Your task to perform on an android device: Open Youtube and go to "Your channel" Image 0: 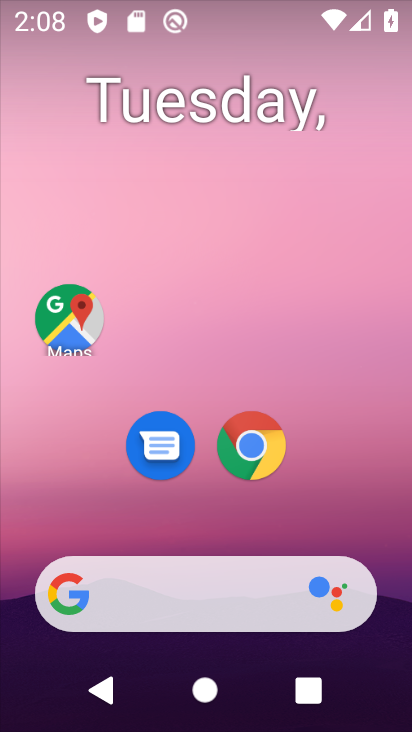
Step 0: drag from (41, 564) to (219, 106)
Your task to perform on an android device: Open Youtube and go to "Your channel" Image 1: 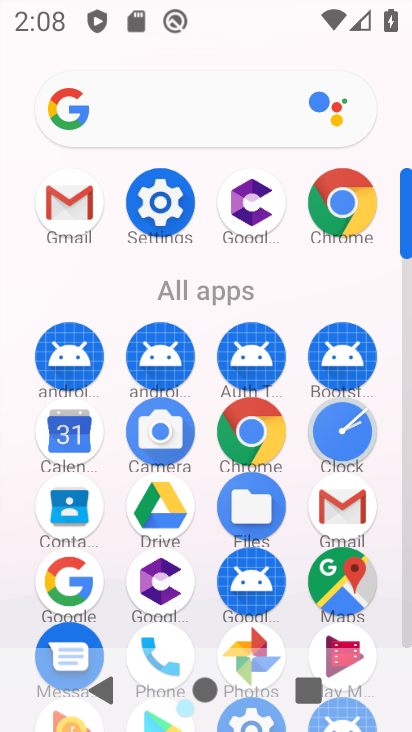
Step 1: drag from (181, 586) to (279, 287)
Your task to perform on an android device: Open Youtube and go to "Your channel" Image 2: 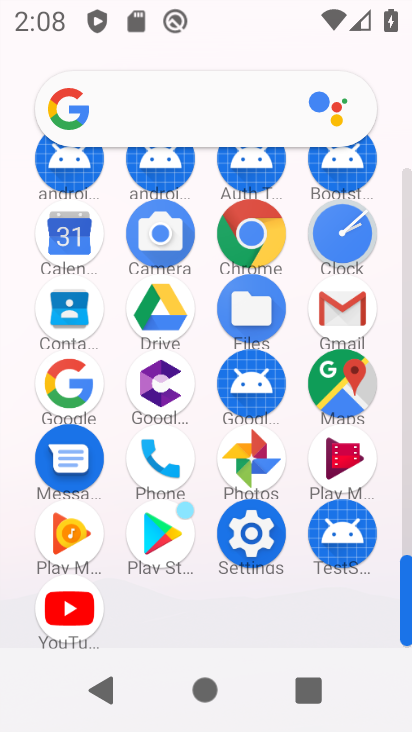
Step 2: click (78, 607)
Your task to perform on an android device: Open Youtube and go to "Your channel" Image 3: 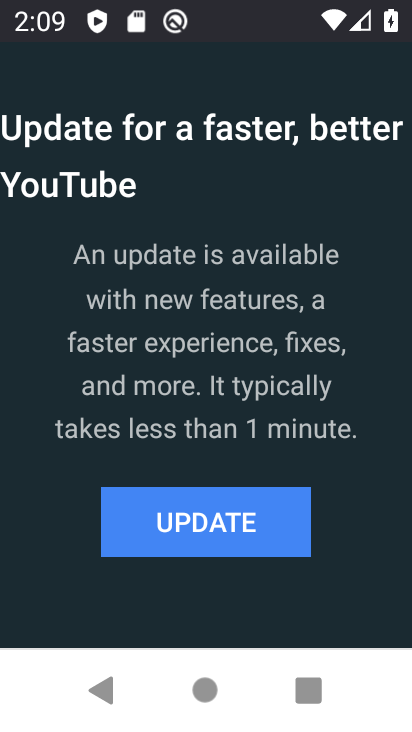
Step 3: click (234, 532)
Your task to perform on an android device: Open Youtube and go to "Your channel" Image 4: 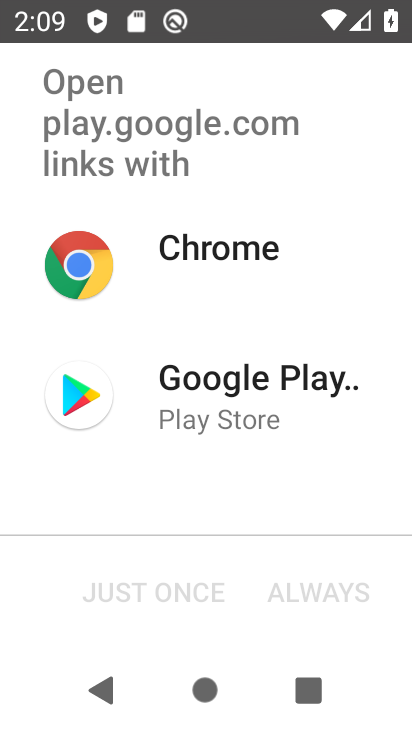
Step 4: click (290, 461)
Your task to perform on an android device: Open Youtube and go to "Your channel" Image 5: 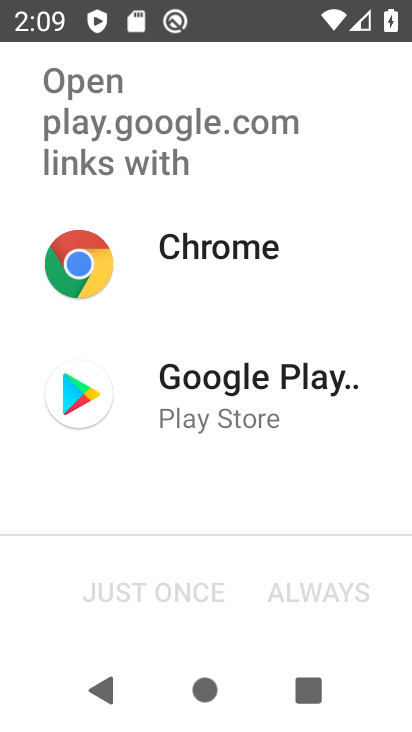
Step 5: click (312, 426)
Your task to perform on an android device: Open Youtube and go to "Your channel" Image 6: 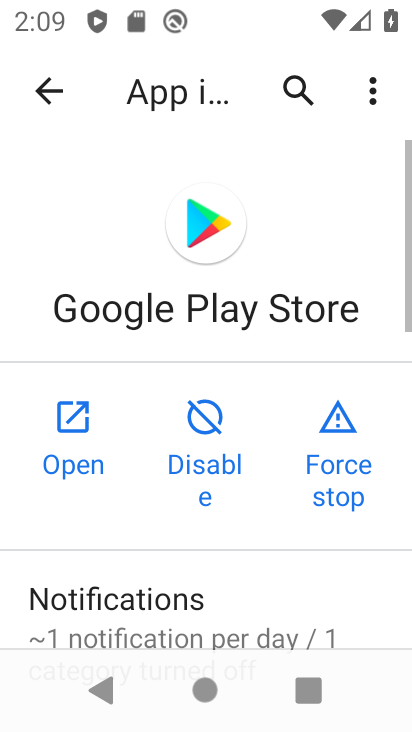
Step 6: press back button
Your task to perform on an android device: Open Youtube and go to "Your channel" Image 7: 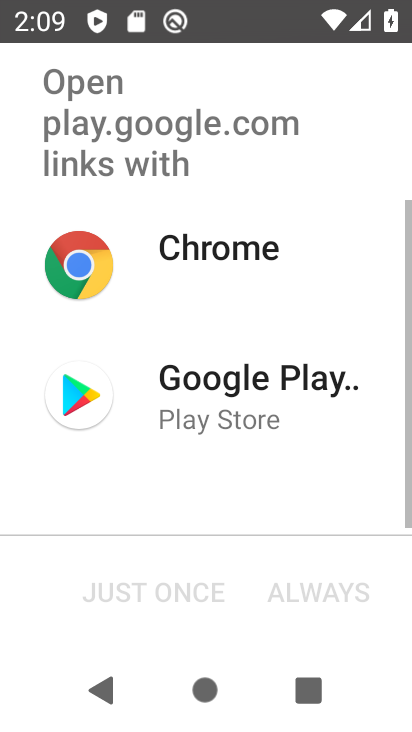
Step 7: click (177, 403)
Your task to perform on an android device: Open Youtube and go to "Your channel" Image 8: 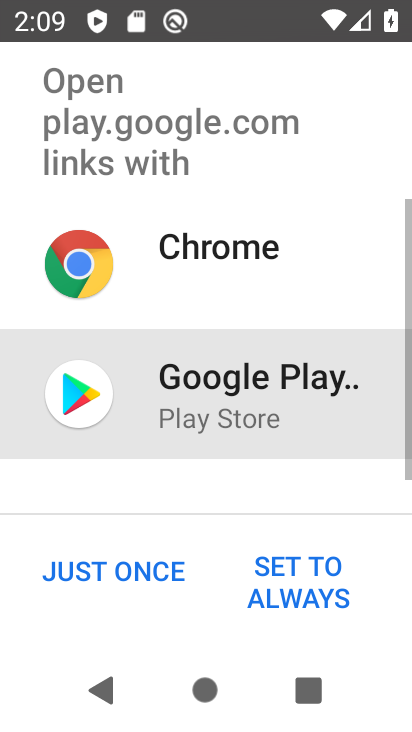
Step 8: click (122, 579)
Your task to perform on an android device: Open Youtube and go to "Your channel" Image 9: 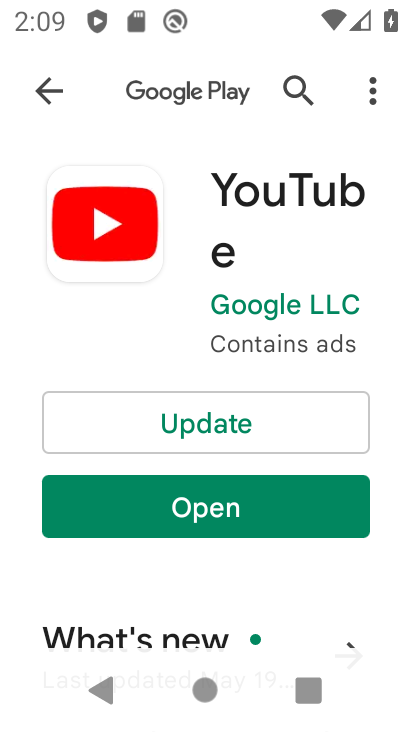
Step 9: click (245, 425)
Your task to perform on an android device: Open Youtube and go to "Your channel" Image 10: 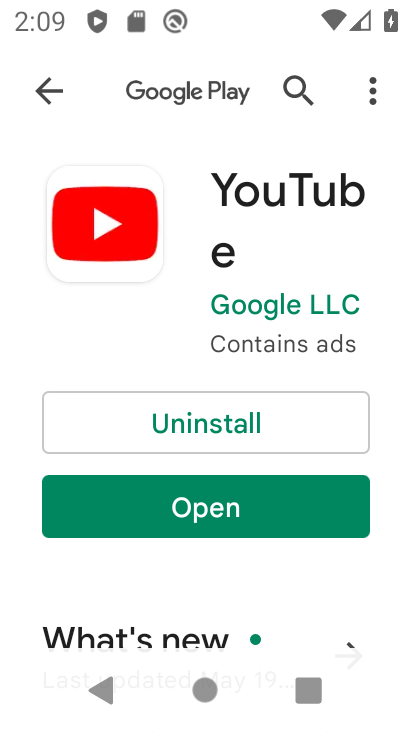
Step 10: click (237, 533)
Your task to perform on an android device: Open Youtube and go to "Your channel" Image 11: 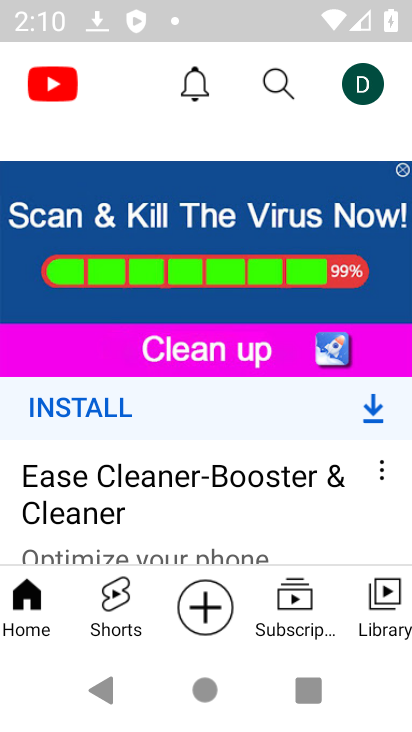
Step 11: click (350, 89)
Your task to perform on an android device: Open Youtube and go to "Your channel" Image 12: 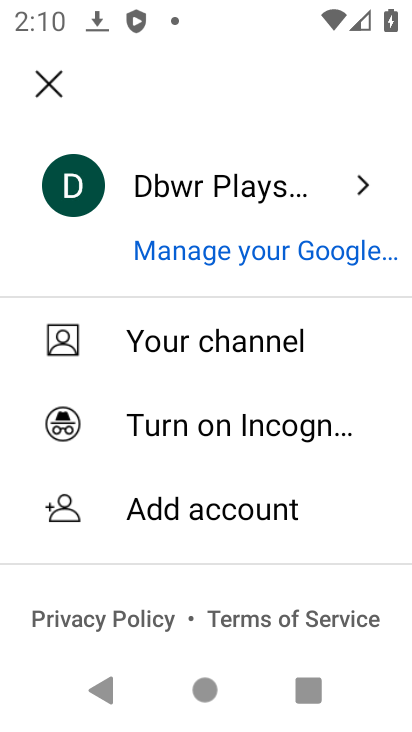
Step 12: click (244, 349)
Your task to perform on an android device: Open Youtube and go to "Your channel" Image 13: 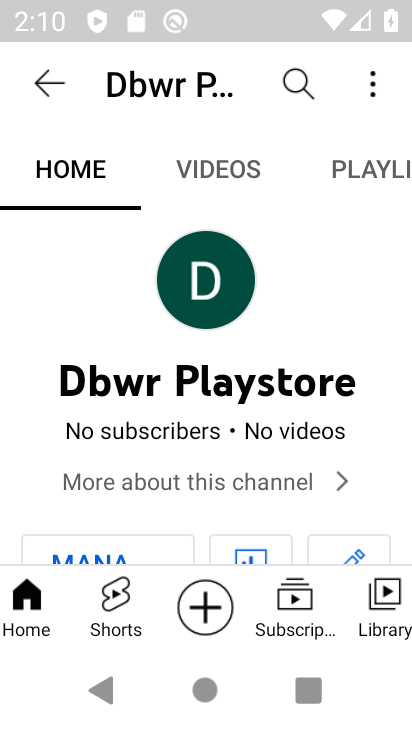
Step 13: task complete